Your task to perform on an android device: Check the weather Image 0: 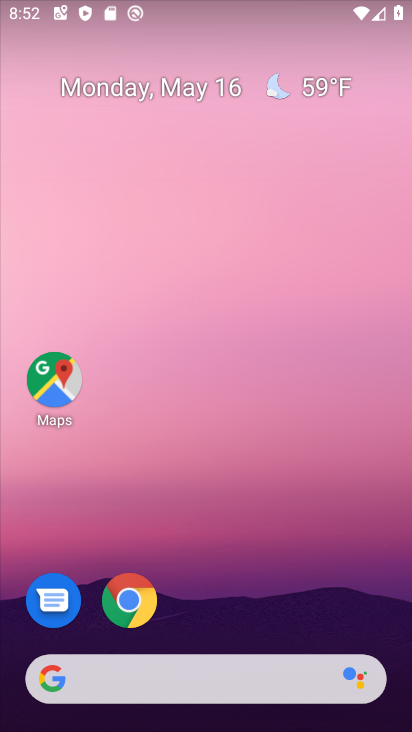
Step 0: drag from (249, 649) to (249, 308)
Your task to perform on an android device: Check the weather Image 1: 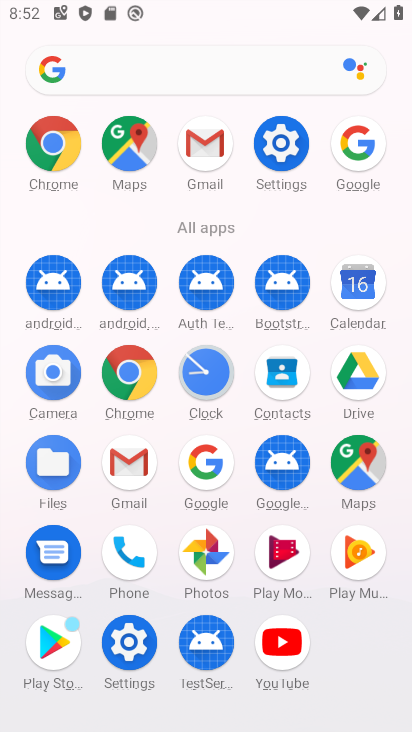
Step 1: click (200, 463)
Your task to perform on an android device: Check the weather Image 2: 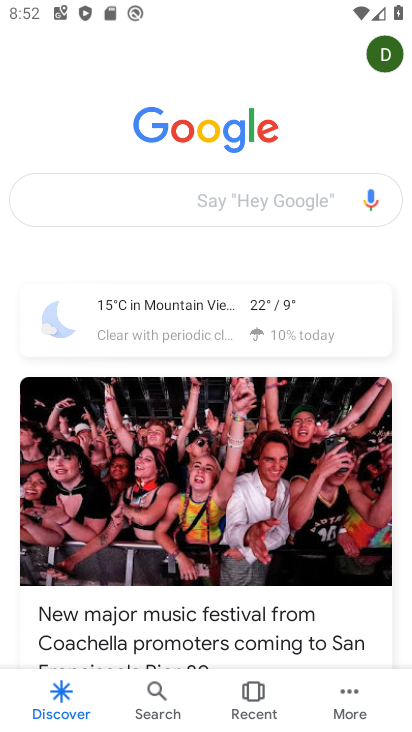
Step 2: click (181, 319)
Your task to perform on an android device: Check the weather Image 3: 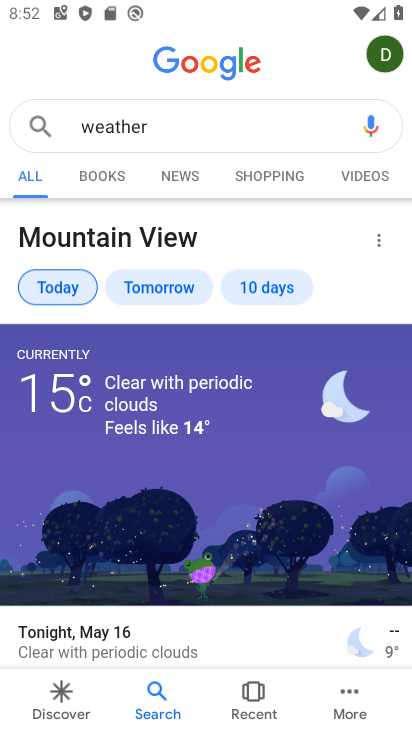
Step 3: task complete